Your task to perform on an android device: check data usage Image 0: 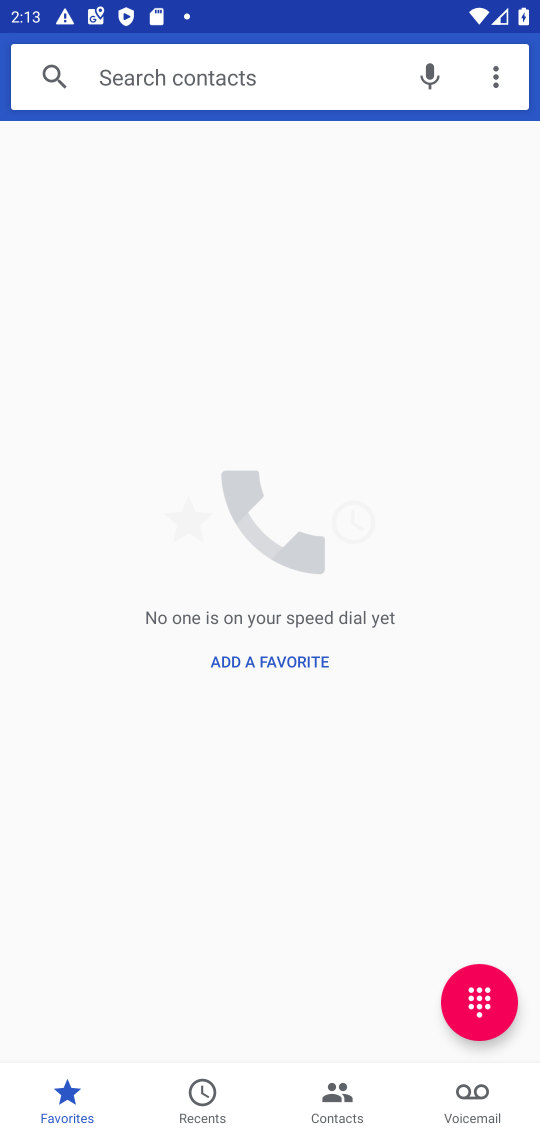
Step 0: press home button
Your task to perform on an android device: check data usage Image 1: 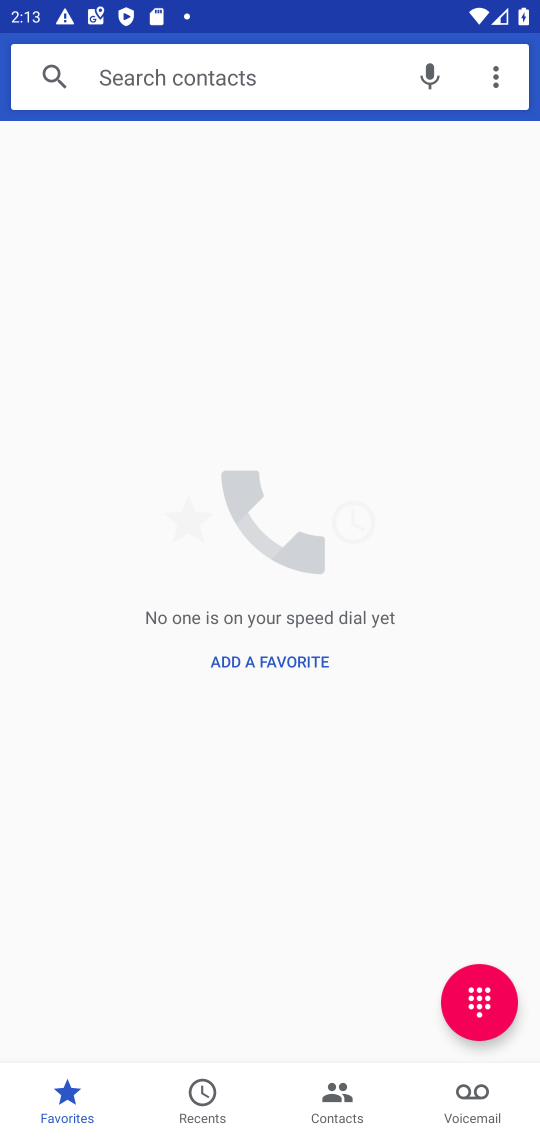
Step 1: press home button
Your task to perform on an android device: check data usage Image 2: 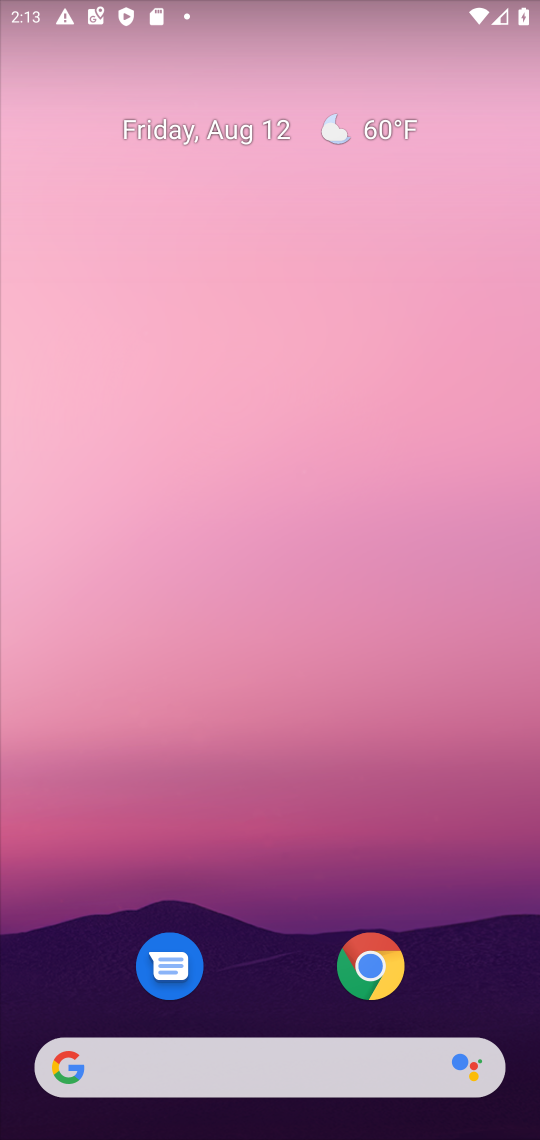
Step 2: drag from (261, 978) to (251, 189)
Your task to perform on an android device: check data usage Image 3: 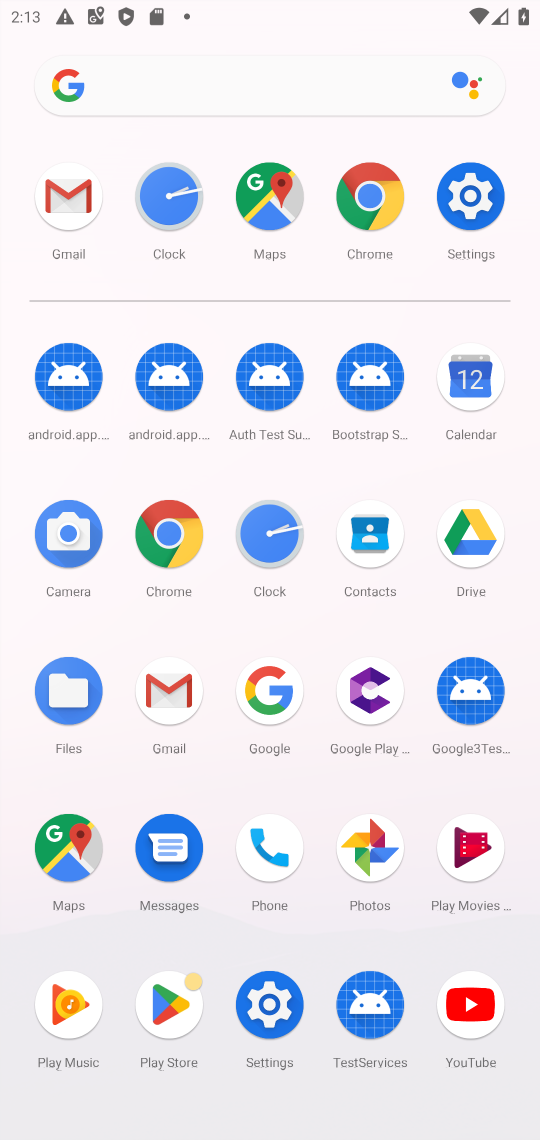
Step 3: click (271, 991)
Your task to perform on an android device: check data usage Image 4: 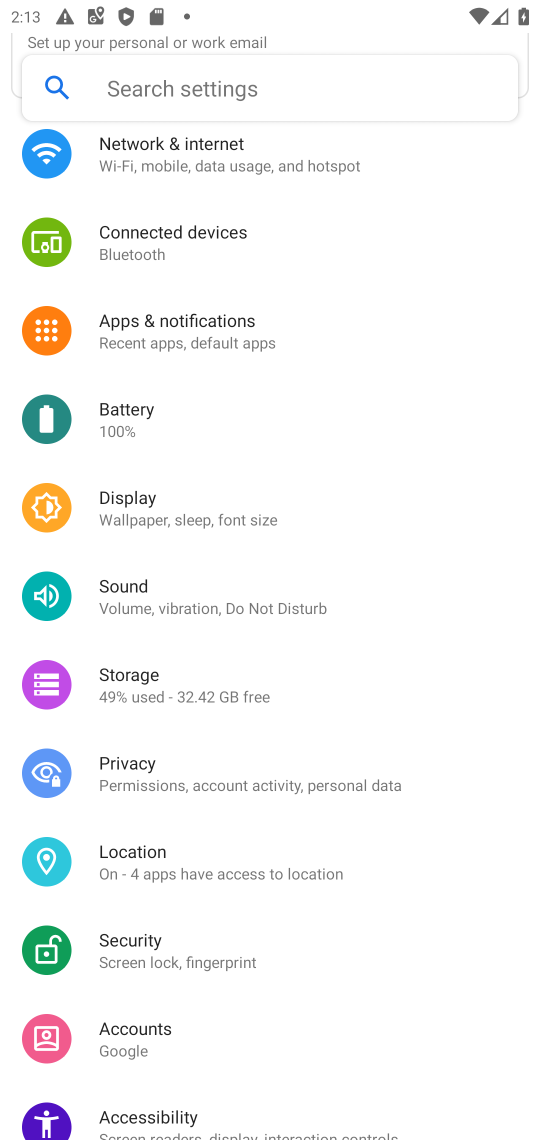
Step 4: click (165, 174)
Your task to perform on an android device: check data usage Image 5: 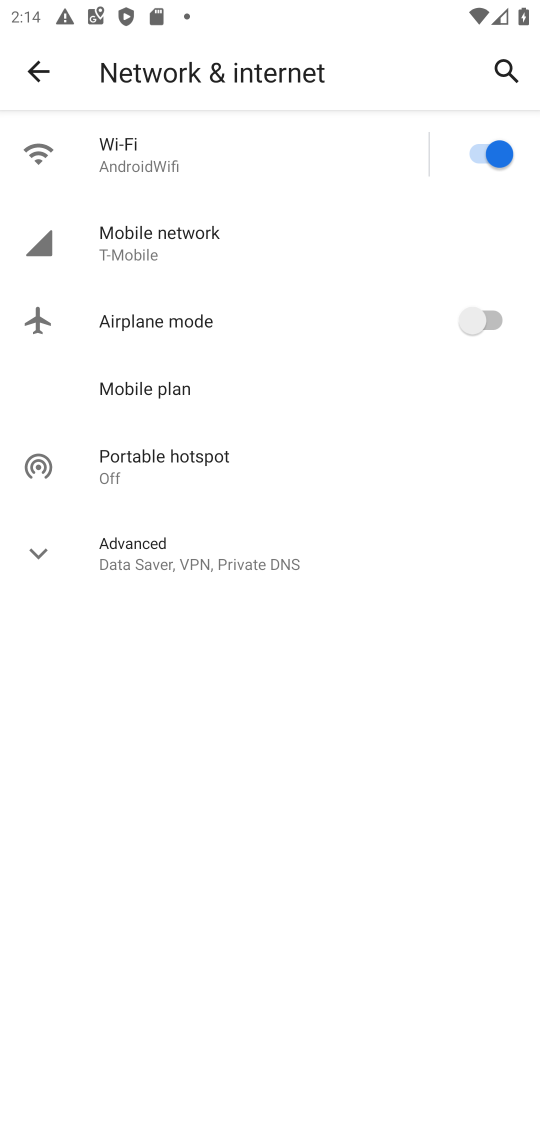
Step 5: click (149, 228)
Your task to perform on an android device: check data usage Image 6: 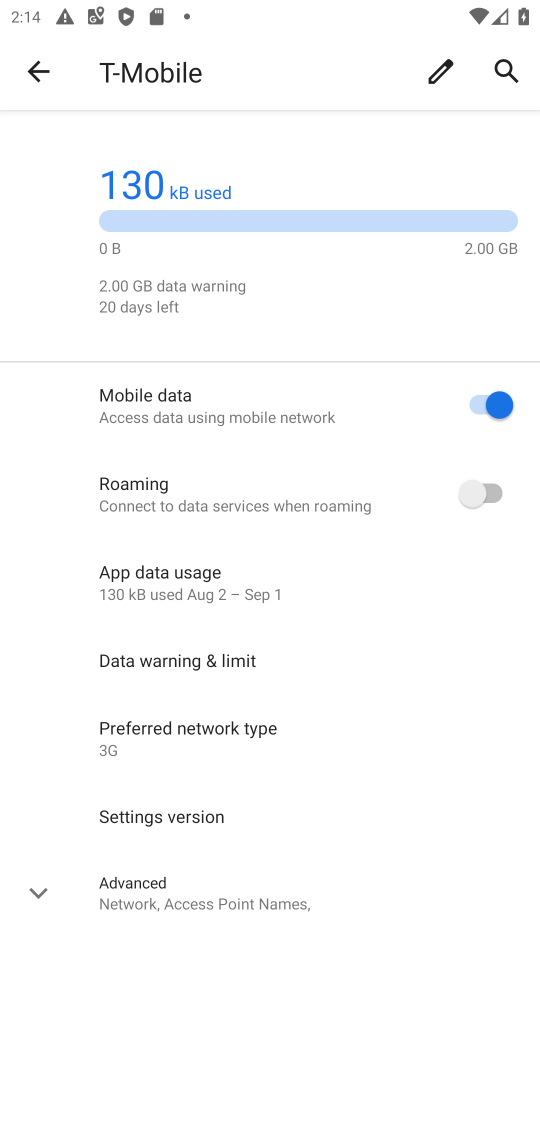
Step 6: task complete